Your task to perform on an android device: Search for Italian restaurants on Maps Image 0: 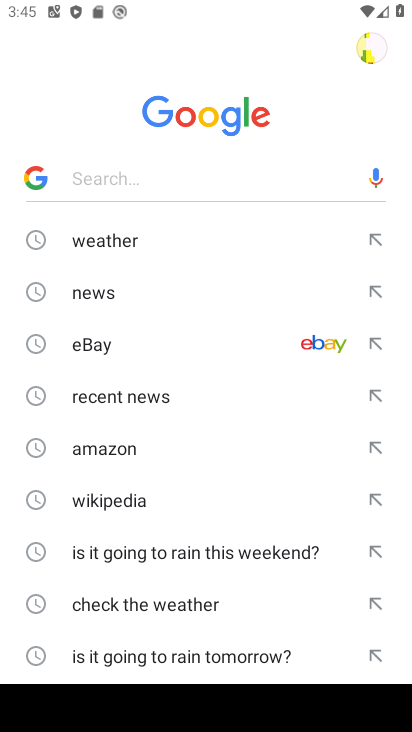
Step 0: press back button
Your task to perform on an android device: Search for Italian restaurants on Maps Image 1: 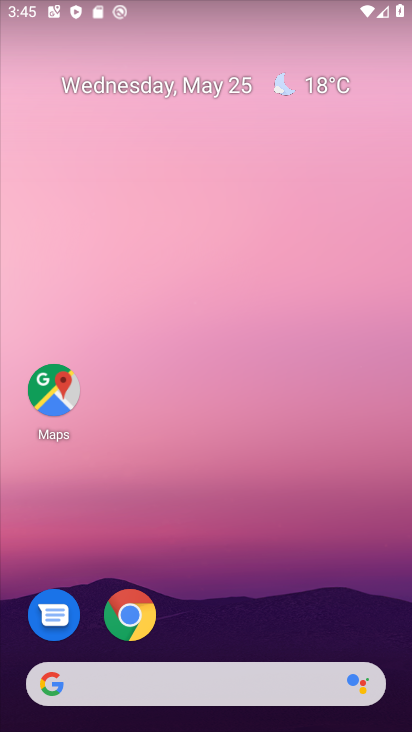
Step 1: click (62, 388)
Your task to perform on an android device: Search for Italian restaurants on Maps Image 2: 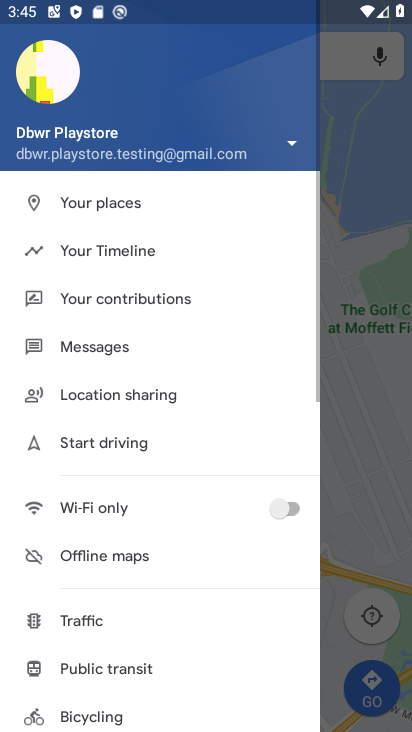
Step 2: click (345, 108)
Your task to perform on an android device: Search for Italian restaurants on Maps Image 3: 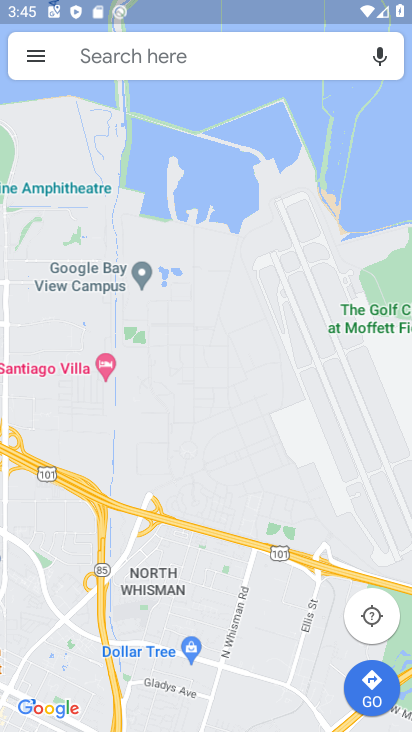
Step 3: click (232, 60)
Your task to perform on an android device: Search for Italian restaurants on Maps Image 4: 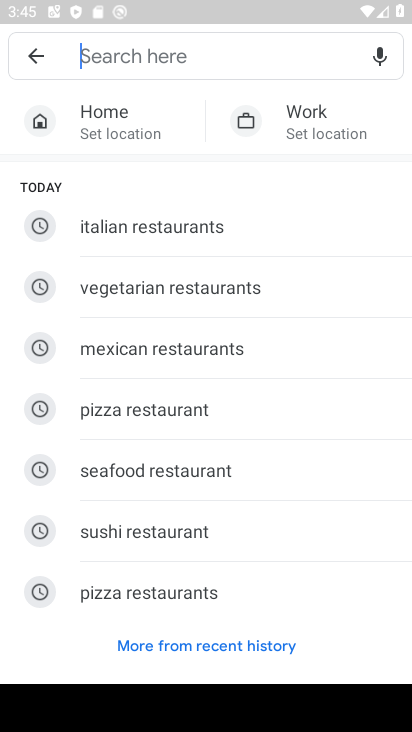
Step 4: click (172, 229)
Your task to perform on an android device: Search for Italian restaurants on Maps Image 5: 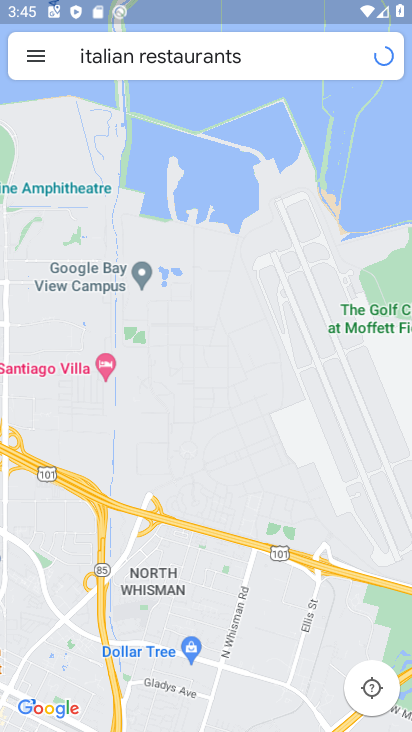
Step 5: task complete